Your task to perform on an android device: What's on my calendar tomorrow? Image 0: 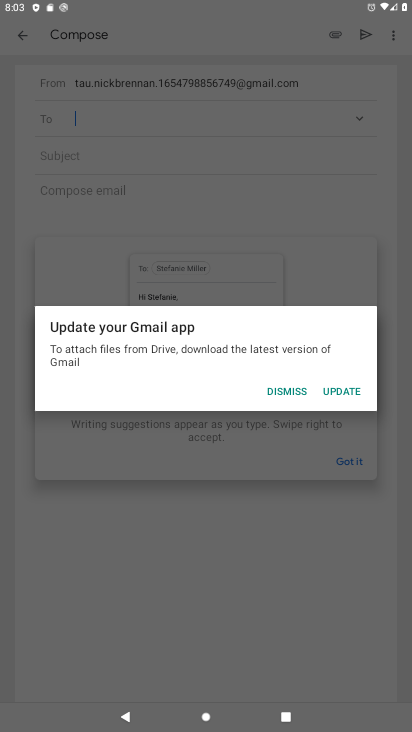
Step 0: press home button
Your task to perform on an android device: What's on my calendar tomorrow? Image 1: 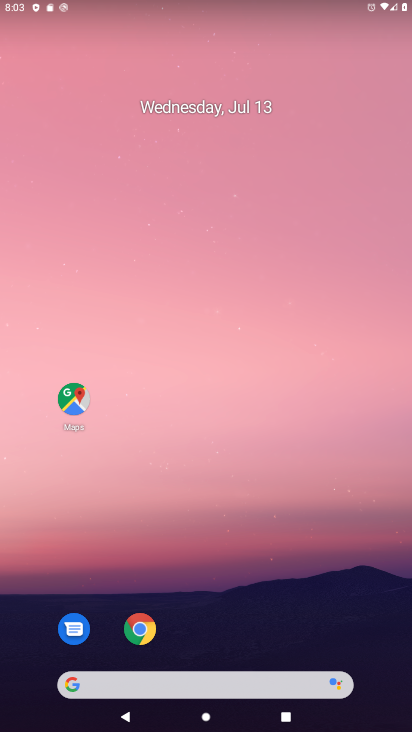
Step 1: drag from (202, 588) to (192, 3)
Your task to perform on an android device: What's on my calendar tomorrow? Image 2: 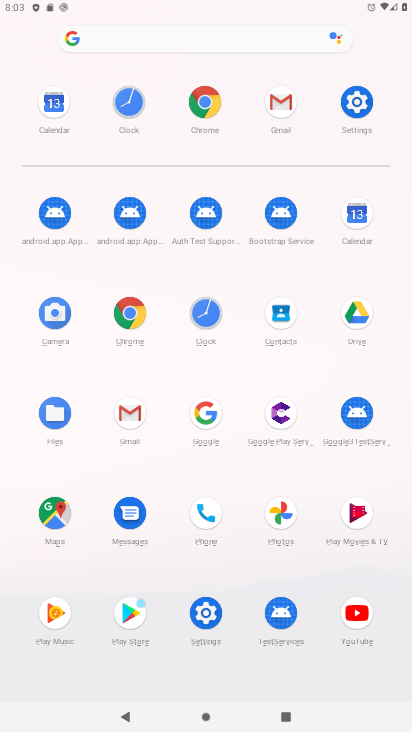
Step 2: click (359, 223)
Your task to perform on an android device: What's on my calendar tomorrow? Image 3: 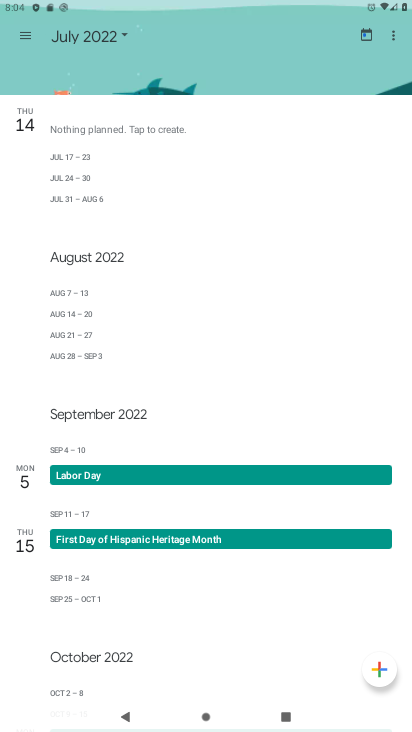
Step 3: click (94, 49)
Your task to perform on an android device: What's on my calendar tomorrow? Image 4: 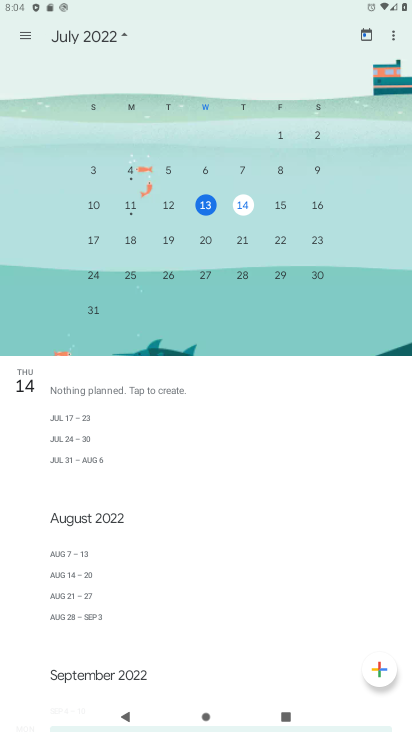
Step 4: click (240, 211)
Your task to perform on an android device: What's on my calendar tomorrow? Image 5: 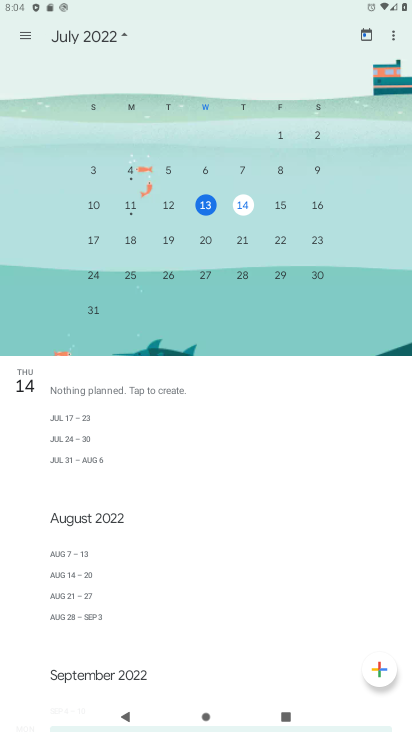
Step 5: task complete